Your task to perform on an android device: set an alarm Image 0: 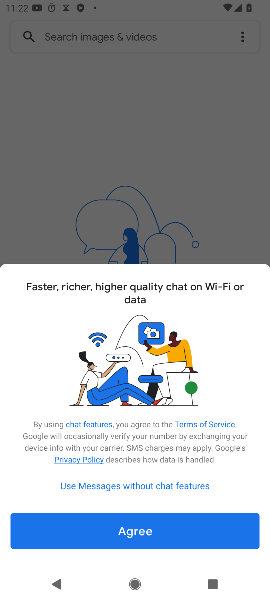
Step 0: press home button
Your task to perform on an android device: set an alarm Image 1: 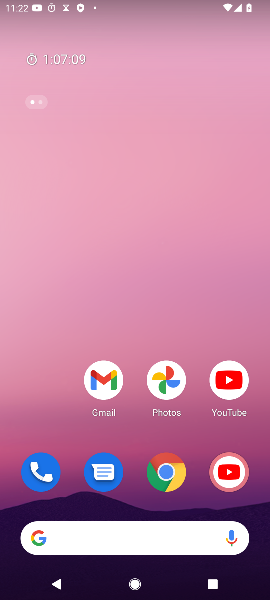
Step 1: drag from (202, 340) to (177, 1)
Your task to perform on an android device: set an alarm Image 2: 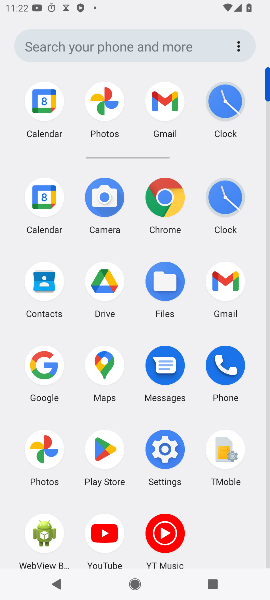
Step 2: click (222, 99)
Your task to perform on an android device: set an alarm Image 3: 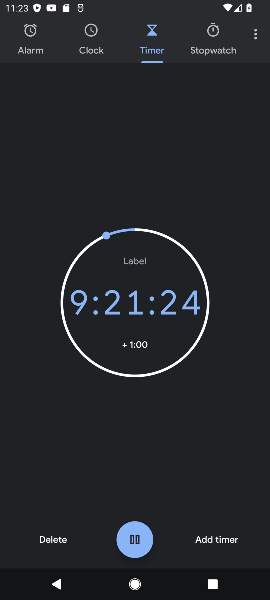
Step 3: click (38, 33)
Your task to perform on an android device: set an alarm Image 4: 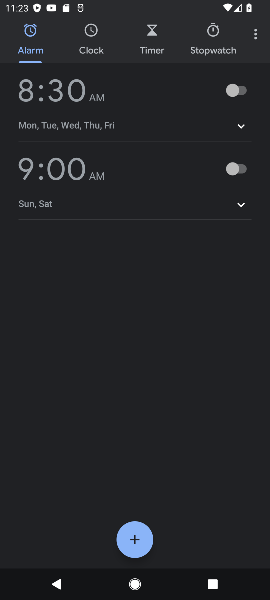
Step 4: click (137, 537)
Your task to perform on an android device: set an alarm Image 5: 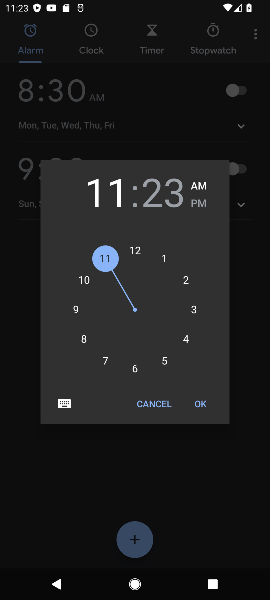
Step 5: click (197, 413)
Your task to perform on an android device: set an alarm Image 6: 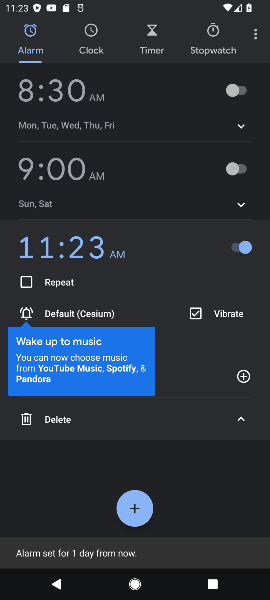
Step 6: task complete